Your task to perform on an android device: turn off sleep mode Image 0: 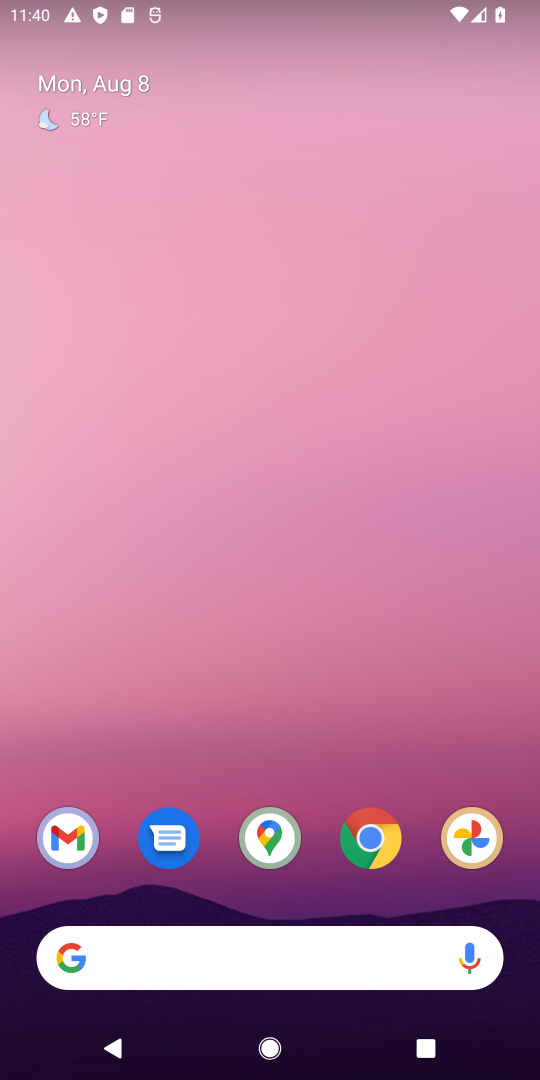
Step 0: press home button
Your task to perform on an android device: turn off sleep mode Image 1: 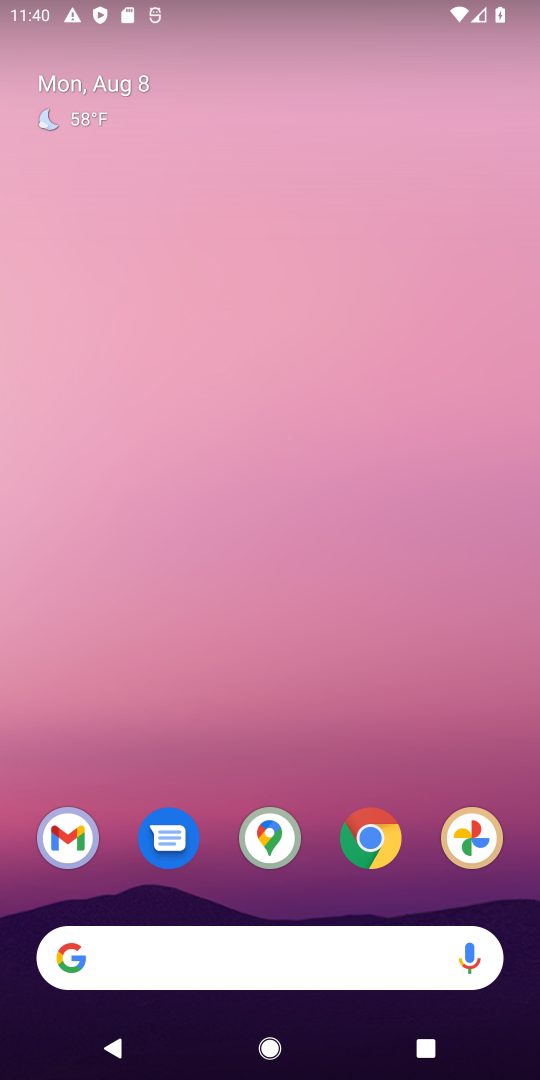
Step 1: drag from (326, 853) to (332, 95)
Your task to perform on an android device: turn off sleep mode Image 2: 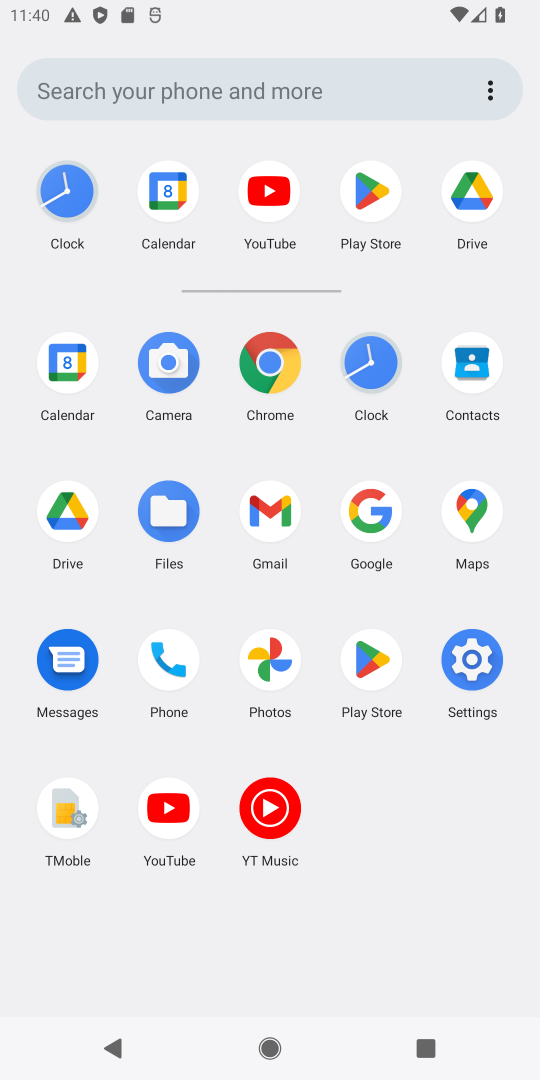
Step 2: click (470, 678)
Your task to perform on an android device: turn off sleep mode Image 3: 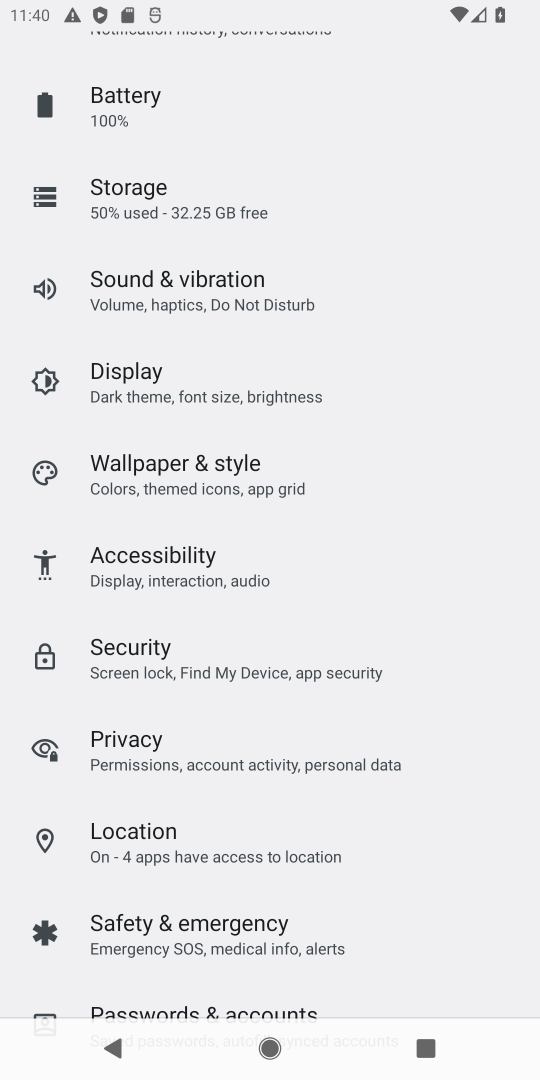
Step 3: click (126, 389)
Your task to perform on an android device: turn off sleep mode Image 4: 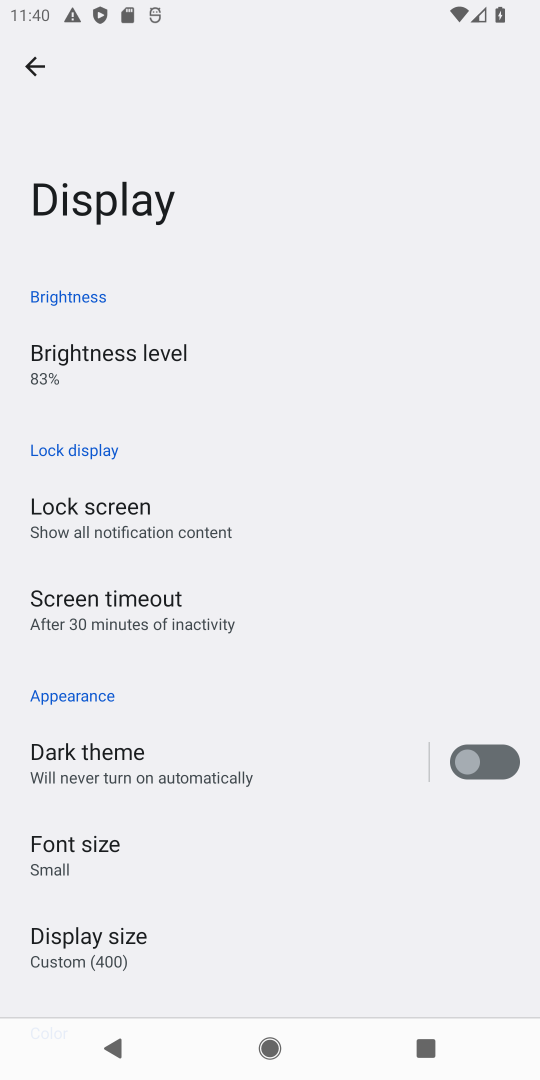
Step 4: task complete